Your task to perform on an android device: Check the news Image 0: 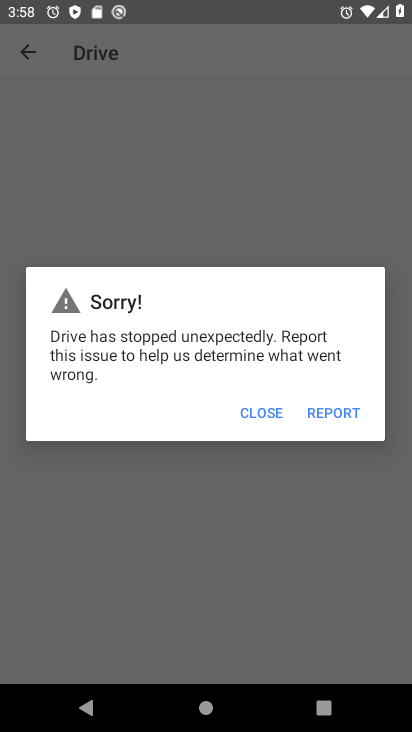
Step 0: press home button
Your task to perform on an android device: Check the news Image 1: 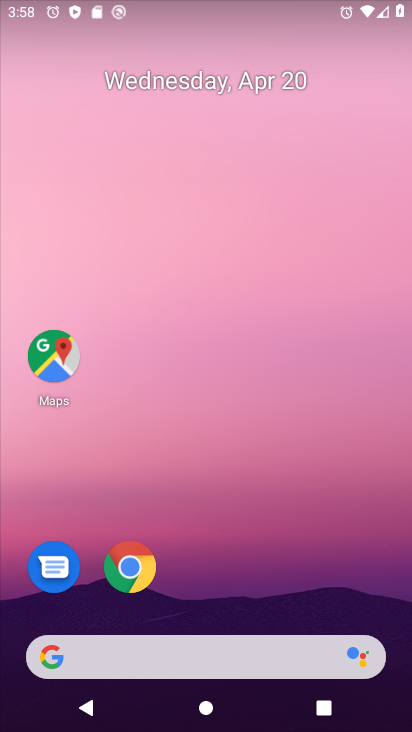
Step 1: drag from (334, 562) to (264, 5)
Your task to perform on an android device: Check the news Image 2: 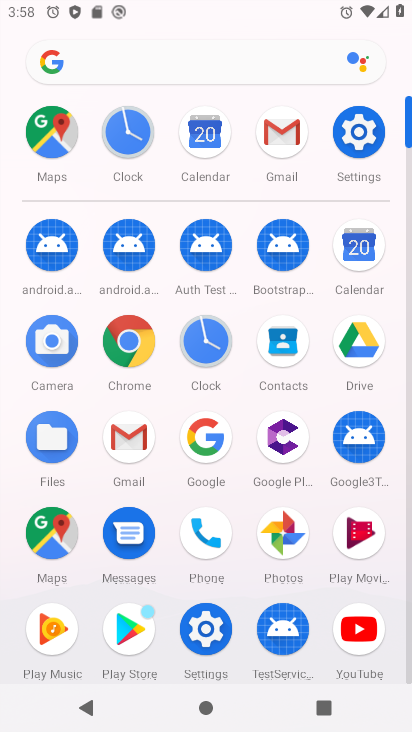
Step 2: click (120, 355)
Your task to perform on an android device: Check the news Image 3: 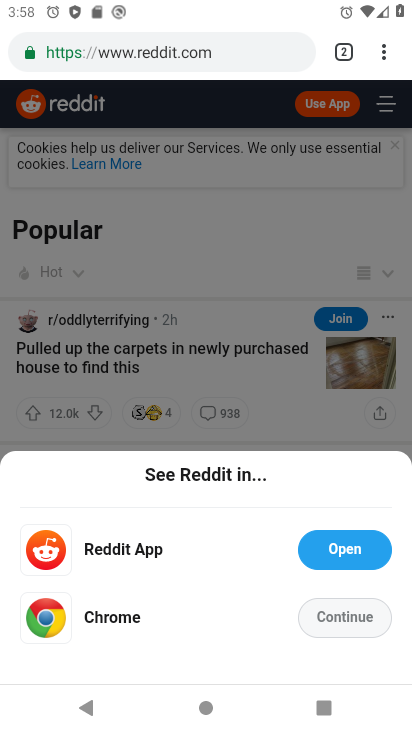
Step 3: click (364, 606)
Your task to perform on an android device: Check the news Image 4: 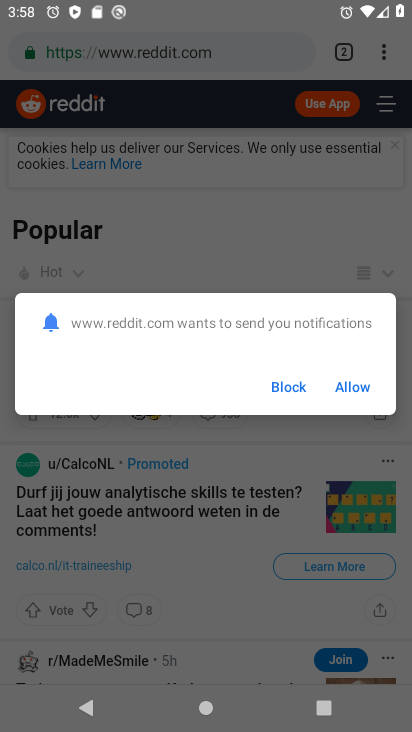
Step 4: click (295, 389)
Your task to perform on an android device: Check the news Image 5: 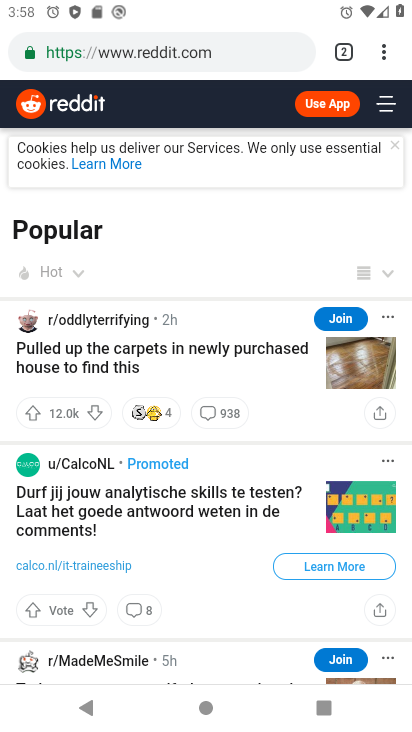
Step 5: click (212, 50)
Your task to perform on an android device: Check the news Image 6: 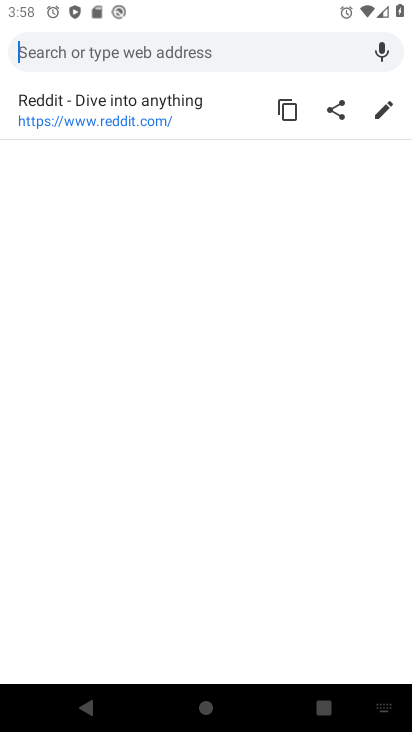
Step 6: type "news"
Your task to perform on an android device: Check the news Image 7: 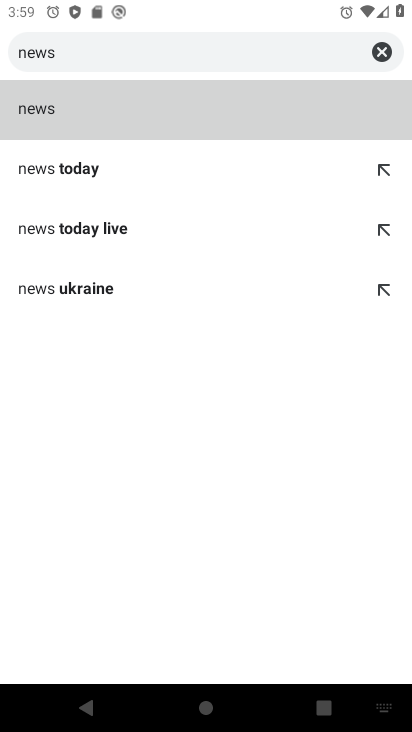
Step 7: click (74, 131)
Your task to perform on an android device: Check the news Image 8: 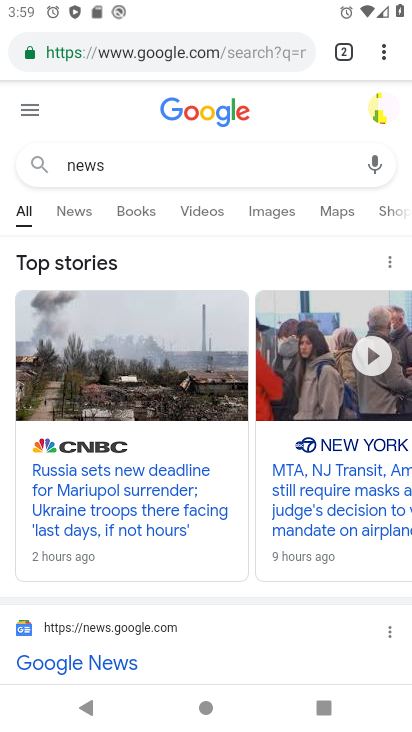
Step 8: task complete